Your task to perform on an android device: Open battery settings Image 0: 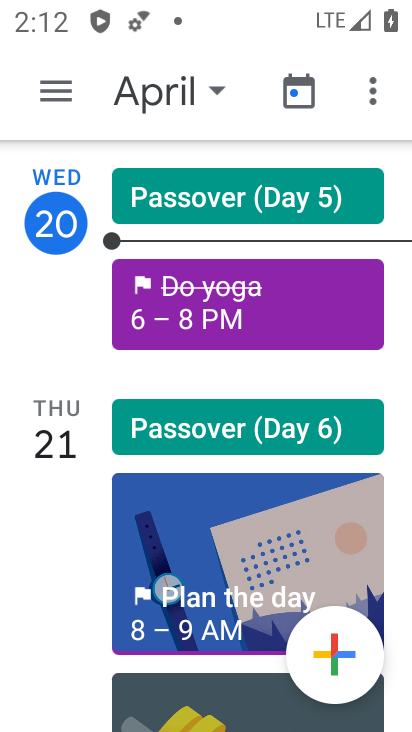
Step 0: press home button
Your task to perform on an android device: Open battery settings Image 1: 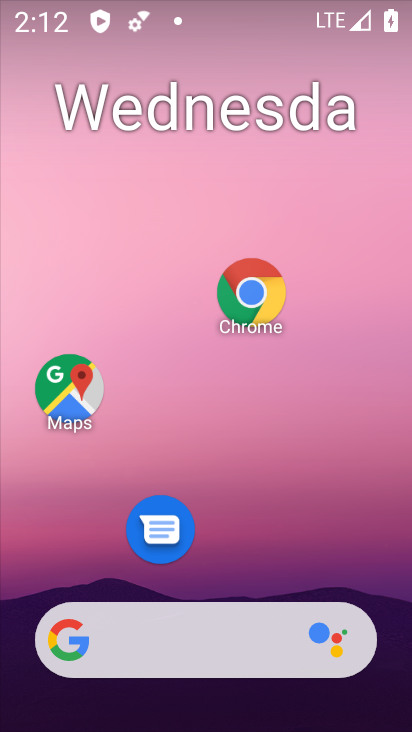
Step 1: drag from (284, 570) to (307, 249)
Your task to perform on an android device: Open battery settings Image 2: 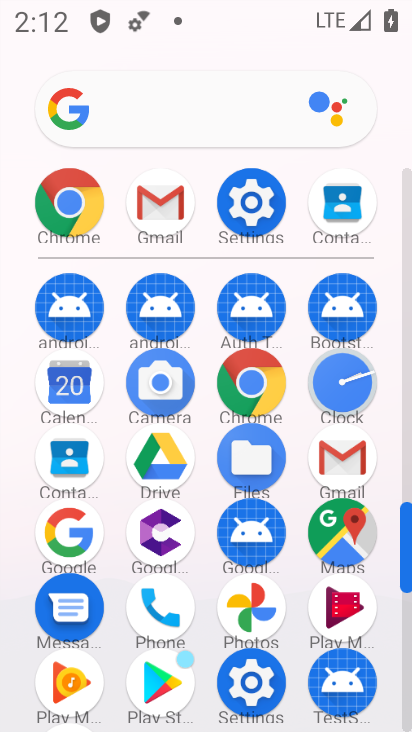
Step 2: click (239, 208)
Your task to perform on an android device: Open battery settings Image 3: 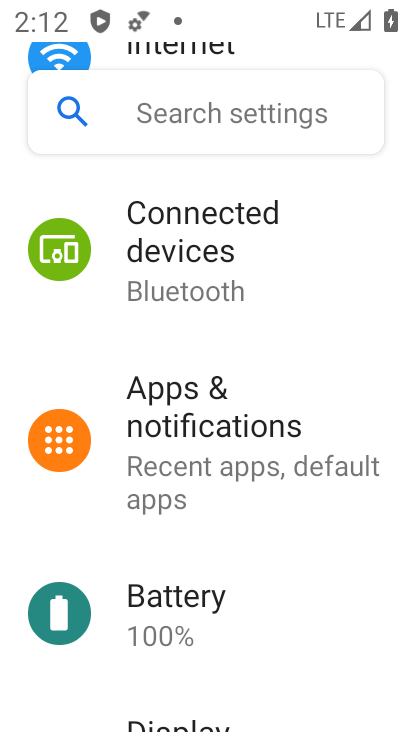
Step 3: click (210, 604)
Your task to perform on an android device: Open battery settings Image 4: 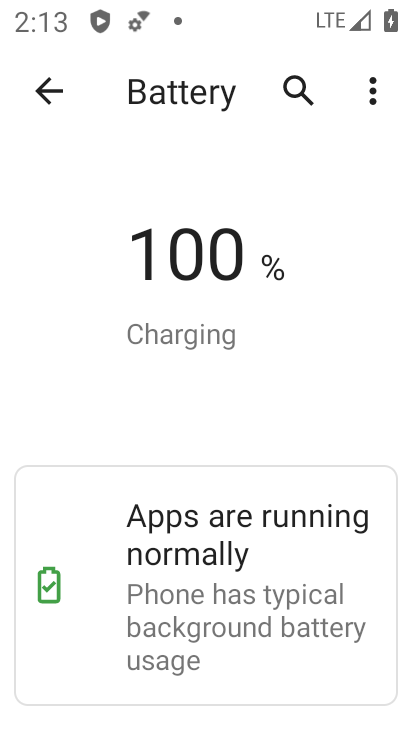
Step 4: task complete